Your task to perform on an android device: Go to ESPN.com Image 0: 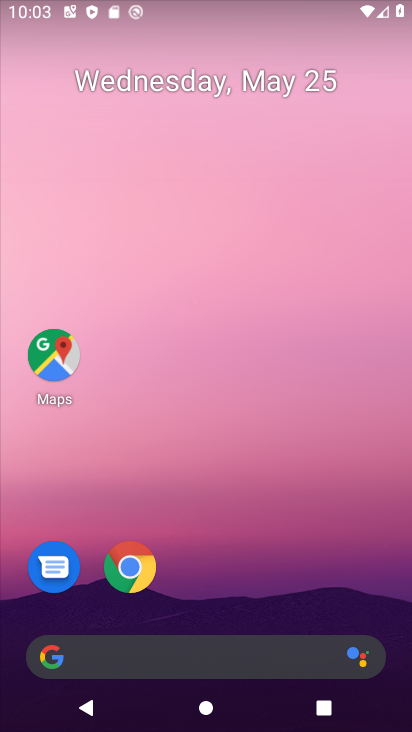
Step 0: click (246, 660)
Your task to perform on an android device: Go to ESPN.com Image 1: 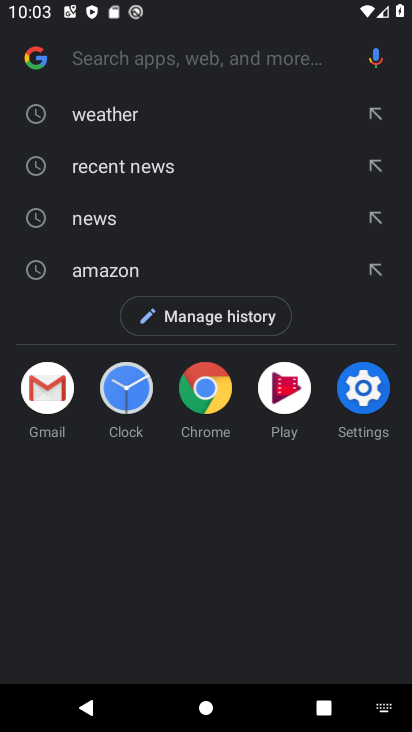
Step 1: type "espn.com"
Your task to perform on an android device: Go to ESPN.com Image 2: 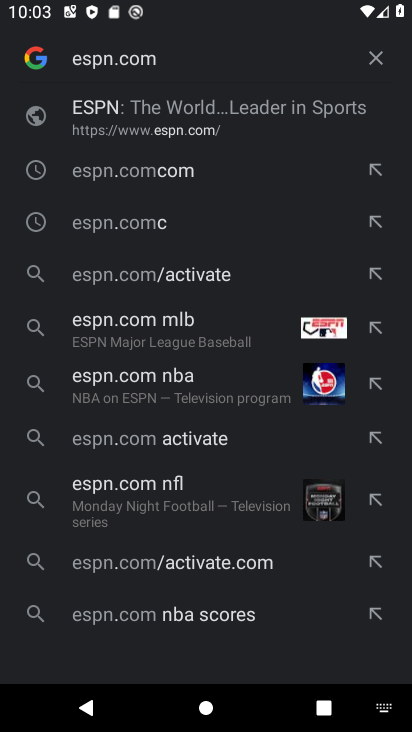
Step 2: click (161, 110)
Your task to perform on an android device: Go to ESPN.com Image 3: 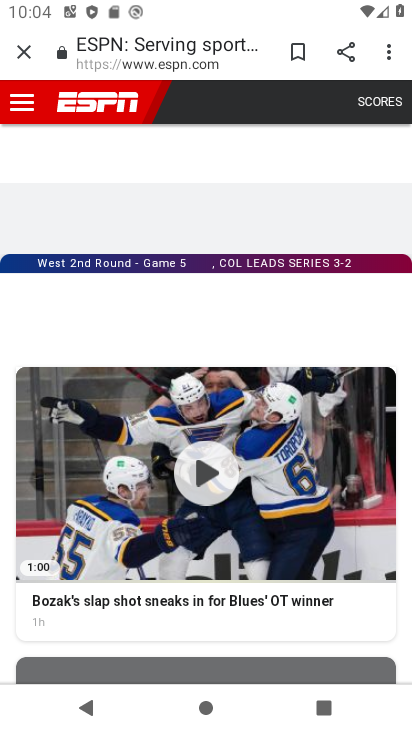
Step 3: task complete